Your task to perform on an android device: Open accessibility settings Image 0: 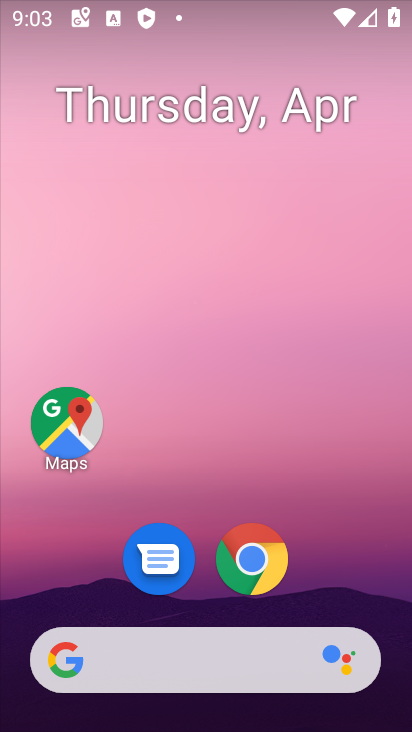
Step 0: drag from (229, 584) to (150, 12)
Your task to perform on an android device: Open accessibility settings Image 1: 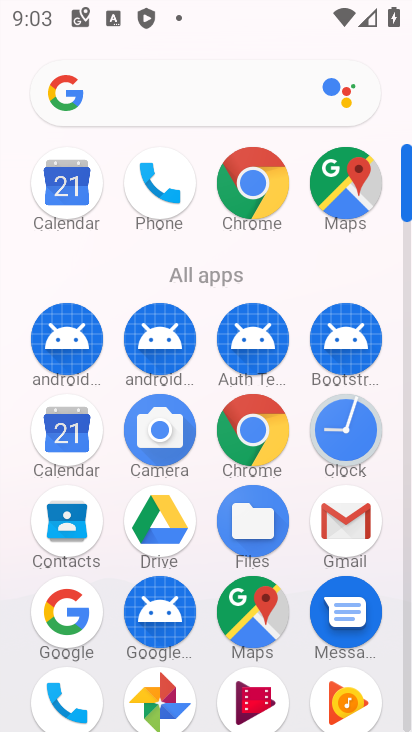
Step 1: drag from (335, 686) to (282, 46)
Your task to perform on an android device: Open accessibility settings Image 2: 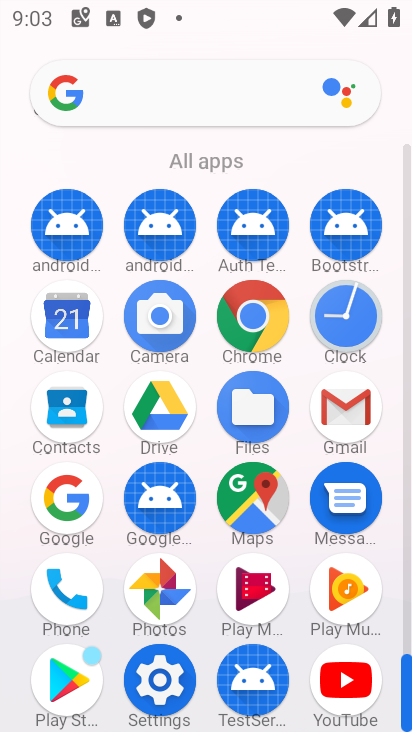
Step 2: click (155, 637)
Your task to perform on an android device: Open accessibility settings Image 3: 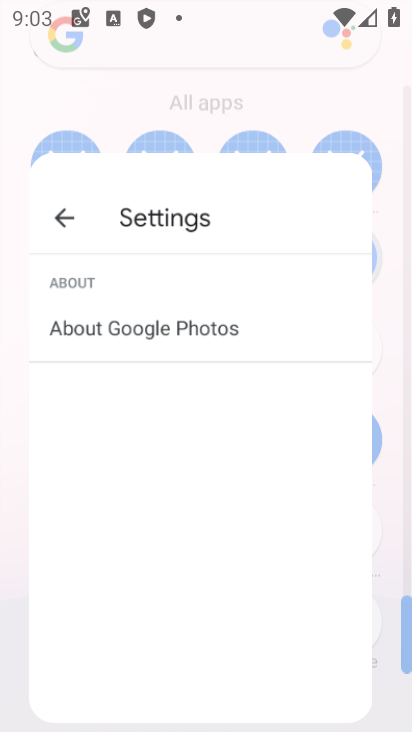
Step 3: click (158, 656)
Your task to perform on an android device: Open accessibility settings Image 4: 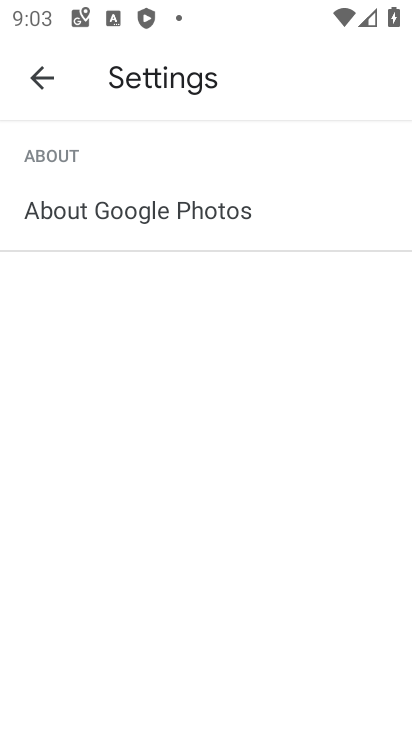
Step 4: press back button
Your task to perform on an android device: Open accessibility settings Image 5: 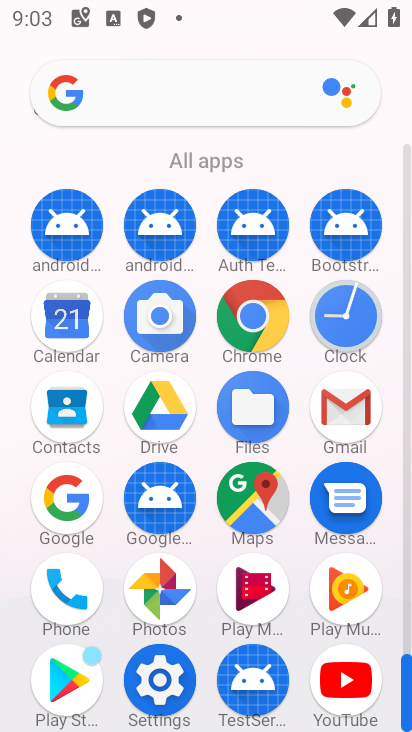
Step 5: click (157, 673)
Your task to perform on an android device: Open accessibility settings Image 6: 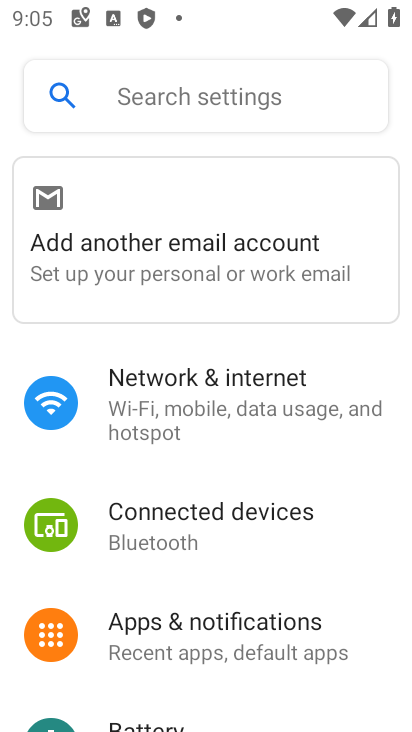
Step 6: drag from (372, 624) to (233, 36)
Your task to perform on an android device: Open accessibility settings Image 7: 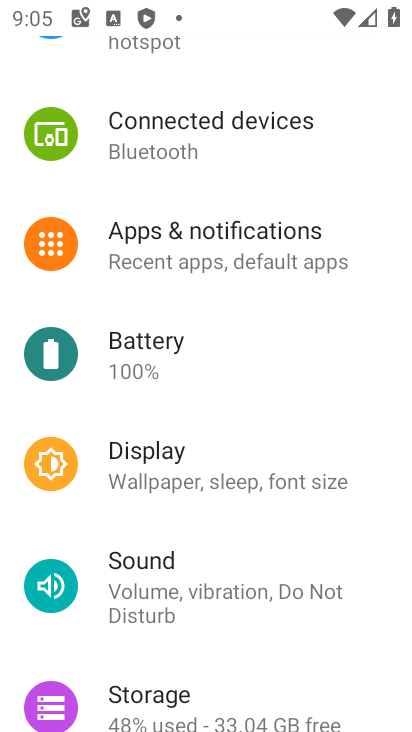
Step 7: drag from (229, 636) to (218, 17)
Your task to perform on an android device: Open accessibility settings Image 8: 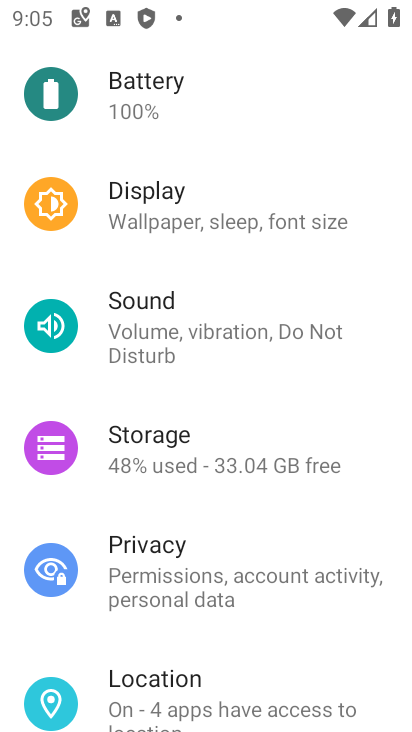
Step 8: drag from (198, 547) to (203, 111)
Your task to perform on an android device: Open accessibility settings Image 9: 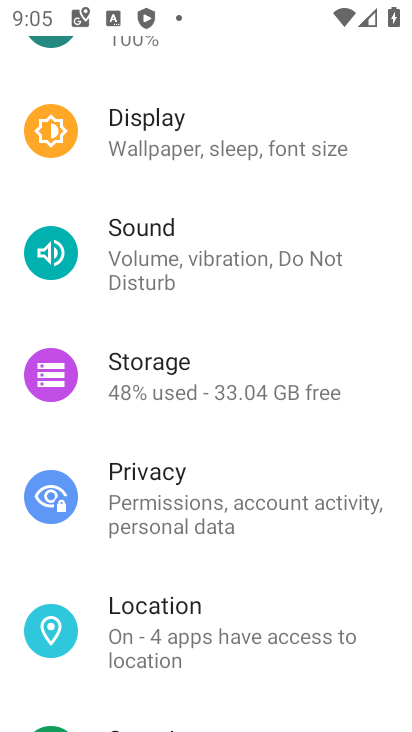
Step 9: drag from (287, 673) to (307, 0)
Your task to perform on an android device: Open accessibility settings Image 10: 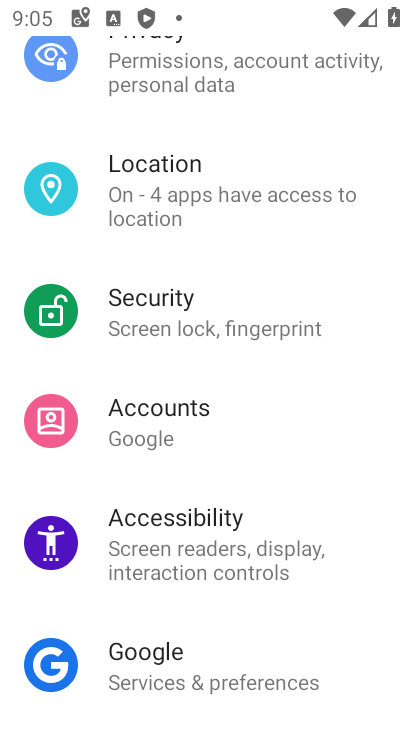
Step 10: click (218, 564)
Your task to perform on an android device: Open accessibility settings Image 11: 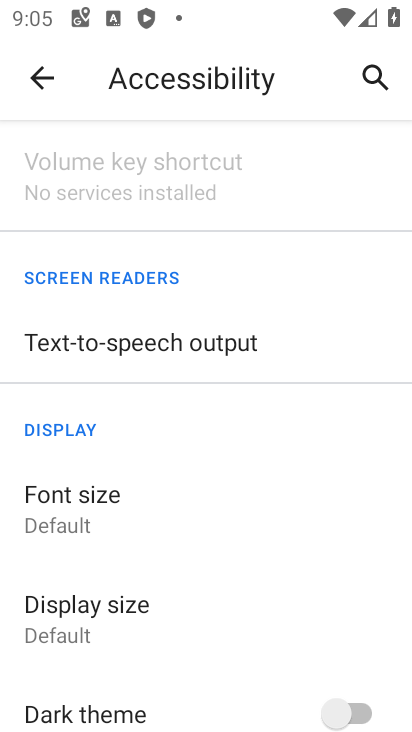
Step 11: task complete